Your task to perform on an android device: move an email to a new category in the gmail app Image 0: 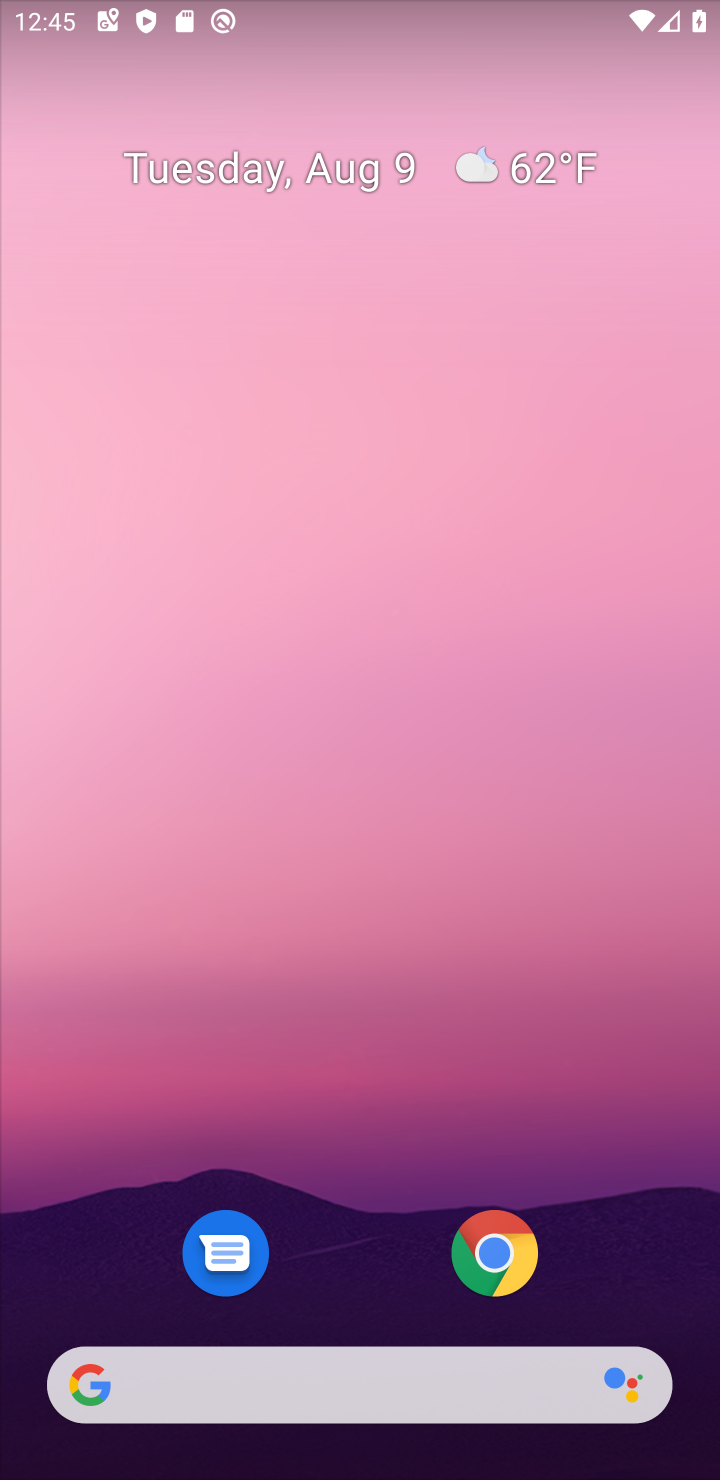
Step 0: drag from (656, 1231) to (404, 71)
Your task to perform on an android device: move an email to a new category in the gmail app Image 1: 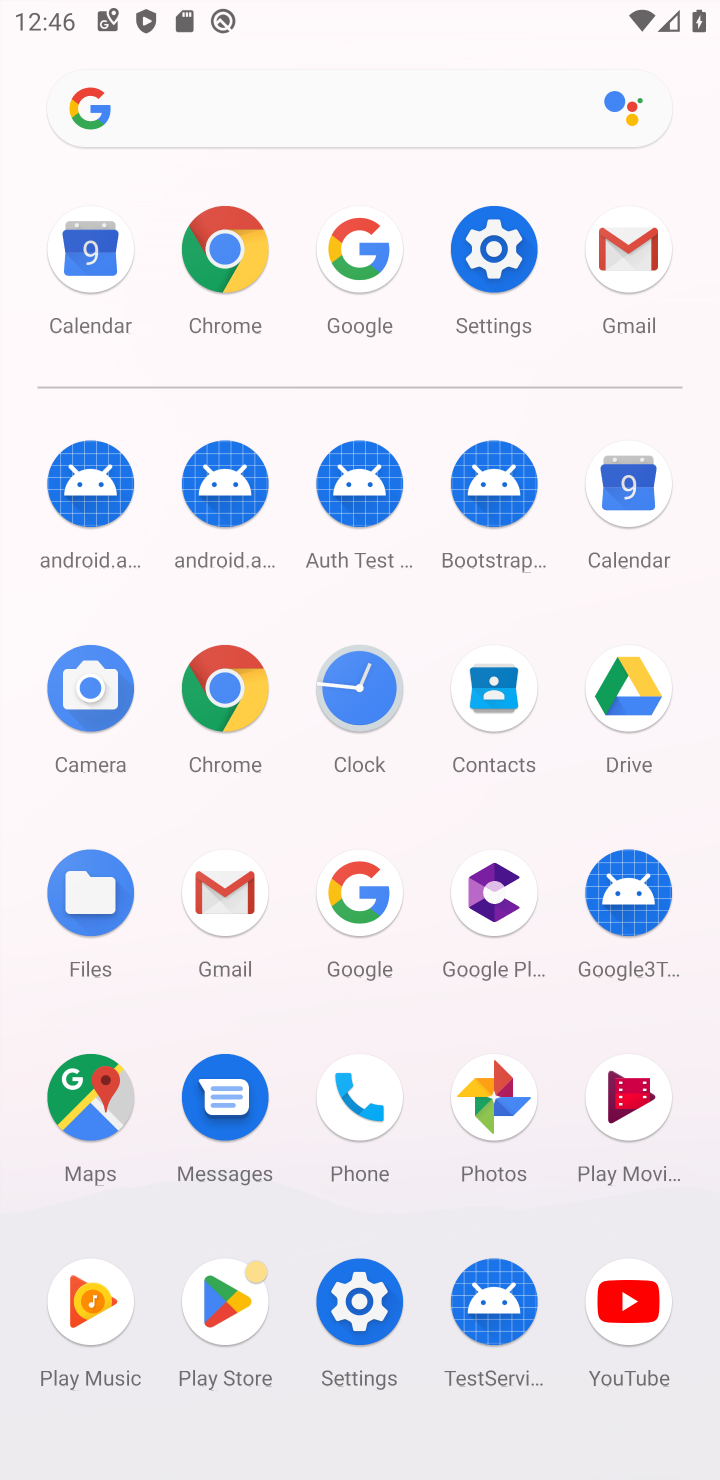
Step 1: click (216, 929)
Your task to perform on an android device: move an email to a new category in the gmail app Image 2: 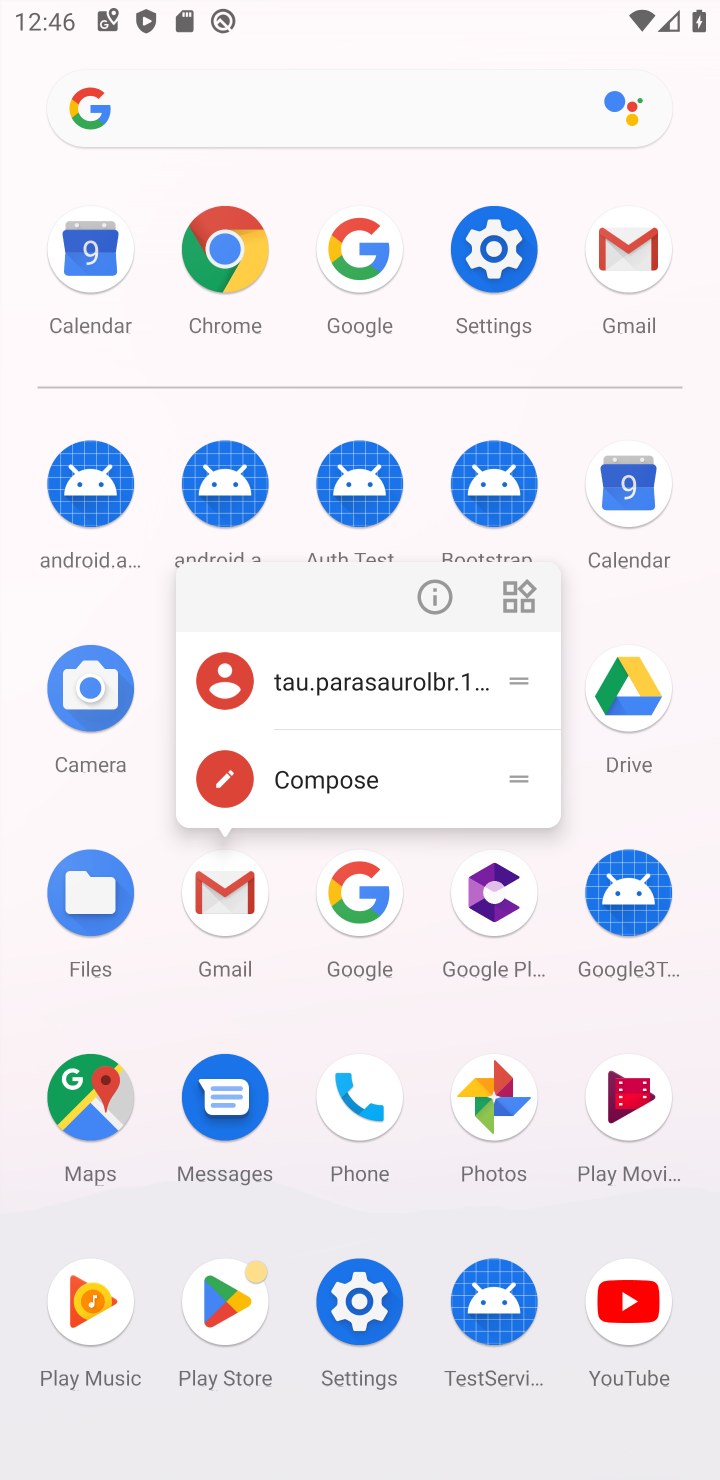
Step 2: click (217, 927)
Your task to perform on an android device: move an email to a new category in the gmail app Image 3: 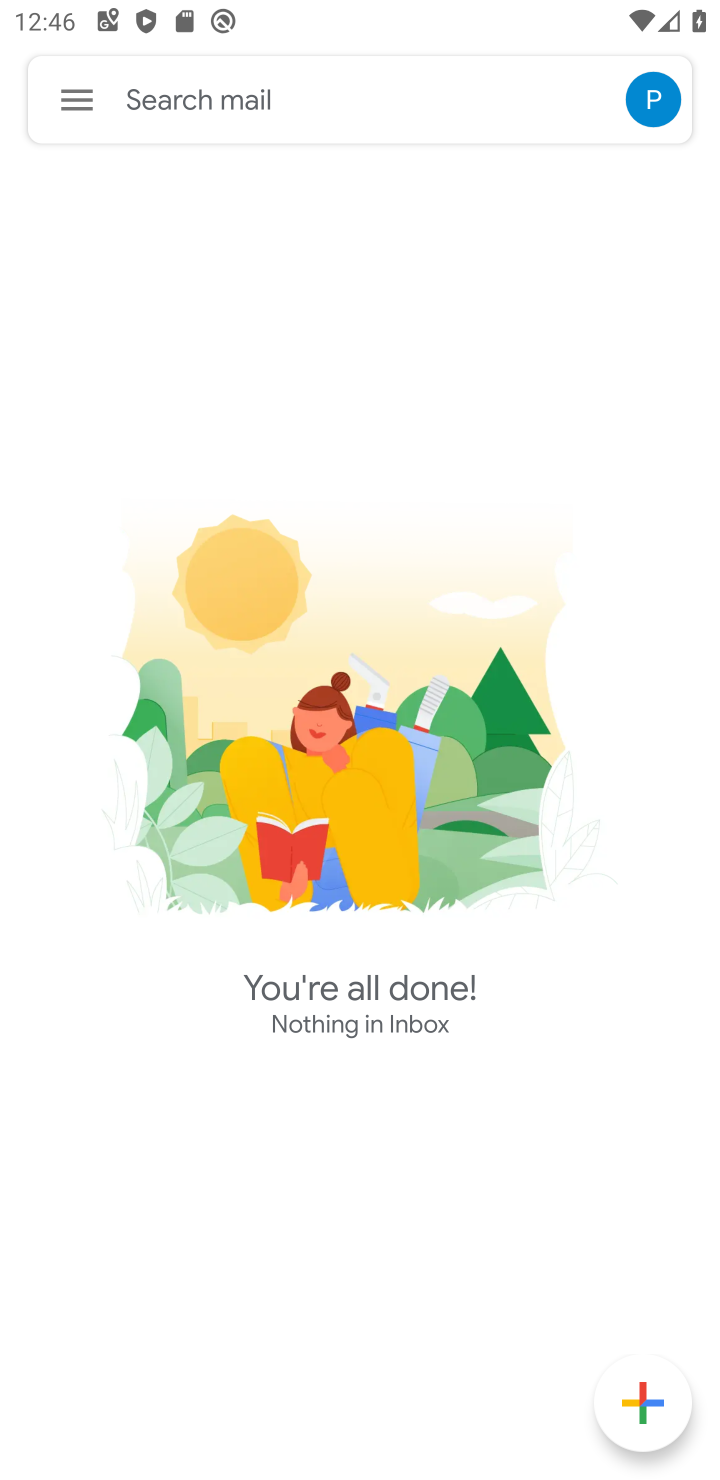
Step 3: task complete